Your task to perform on an android device: toggle wifi Image 0: 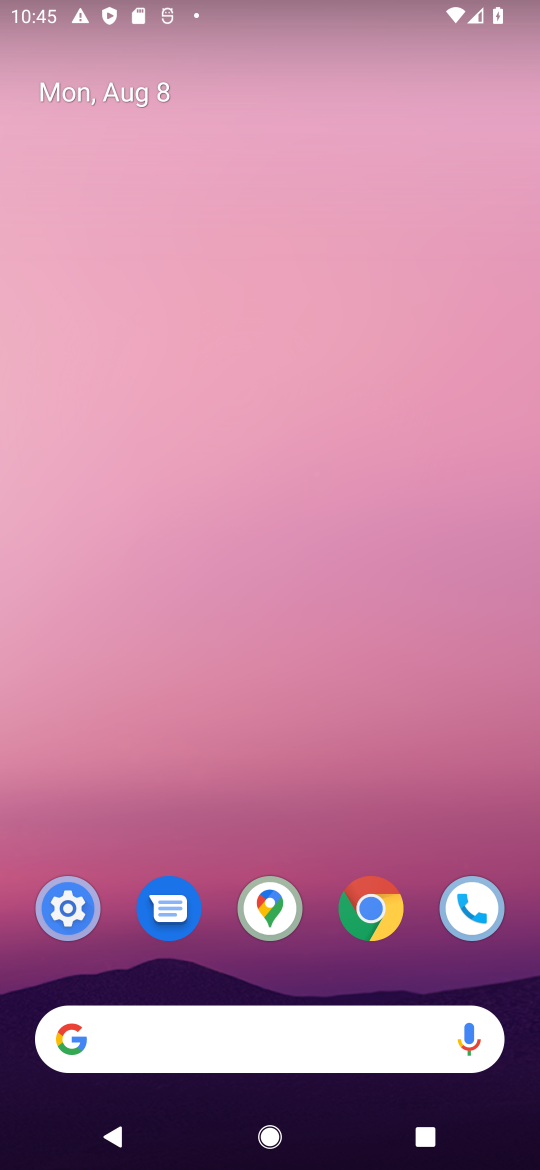
Step 0: drag from (302, 836) to (317, 3)
Your task to perform on an android device: toggle wifi Image 1: 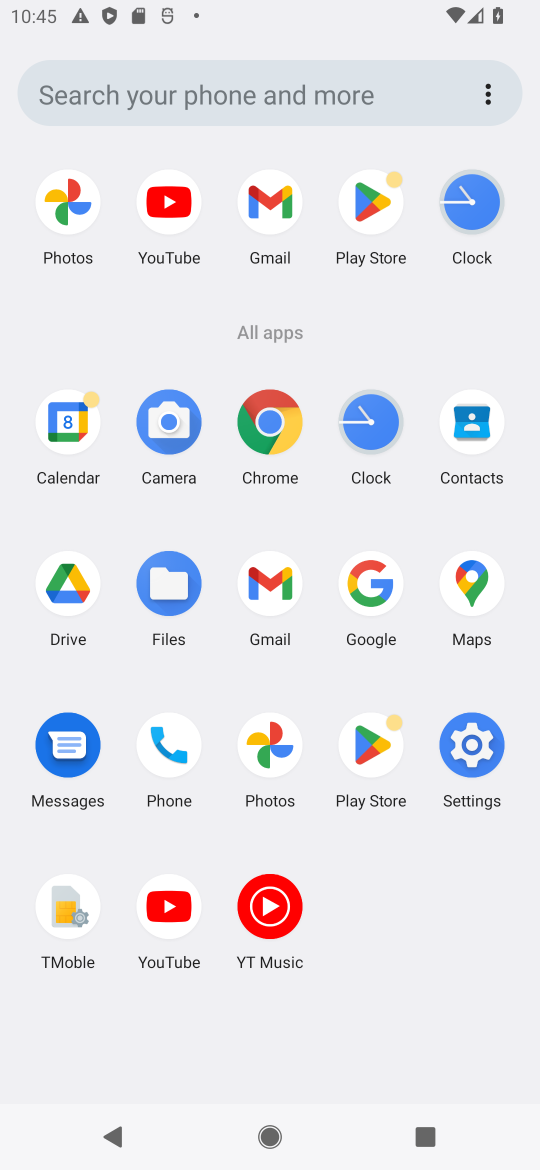
Step 1: click (468, 735)
Your task to perform on an android device: toggle wifi Image 2: 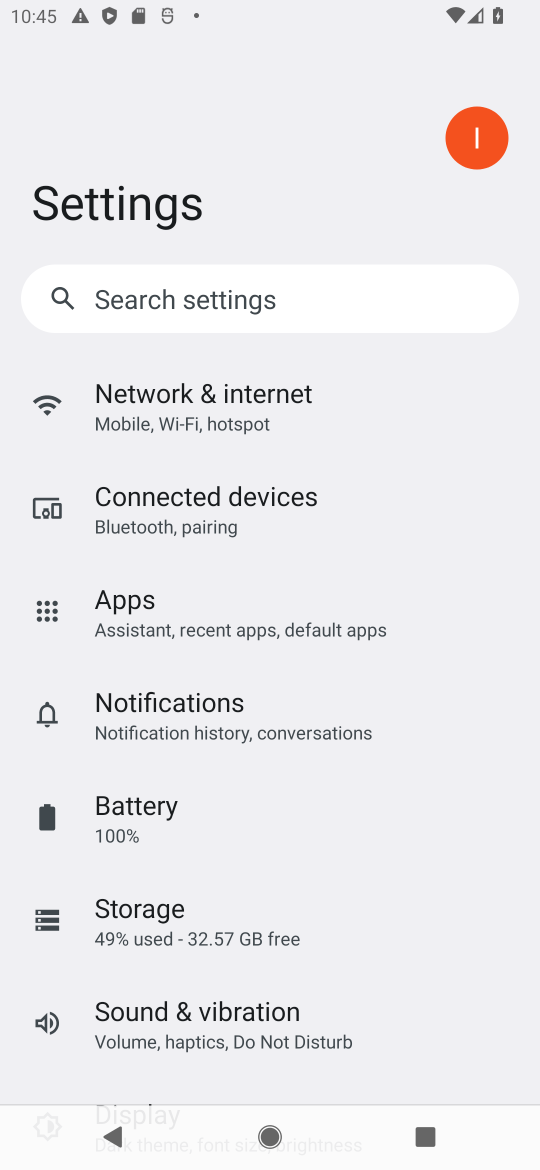
Step 2: click (197, 394)
Your task to perform on an android device: toggle wifi Image 3: 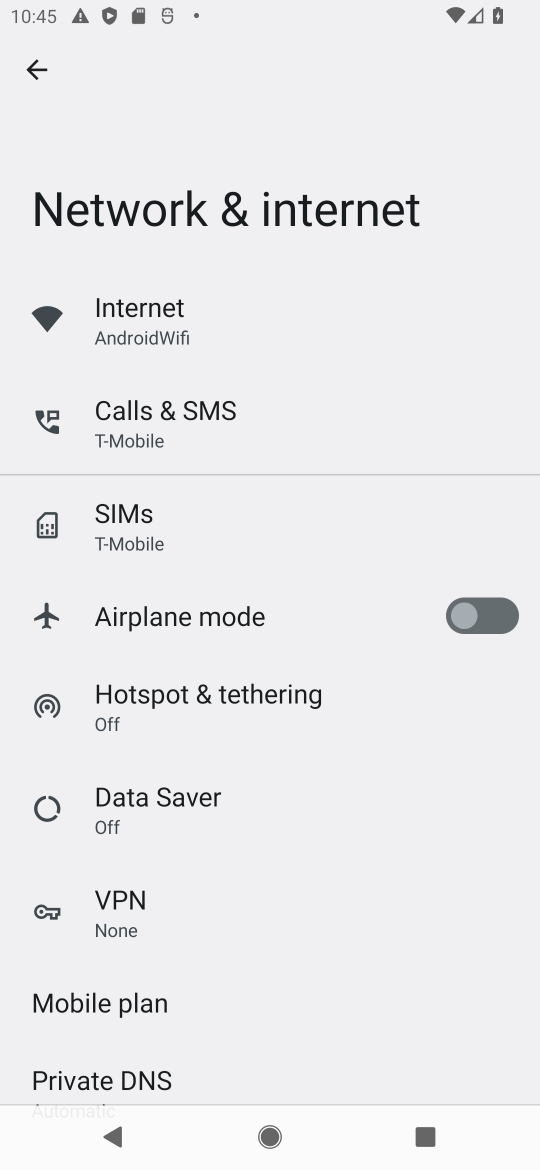
Step 3: click (208, 316)
Your task to perform on an android device: toggle wifi Image 4: 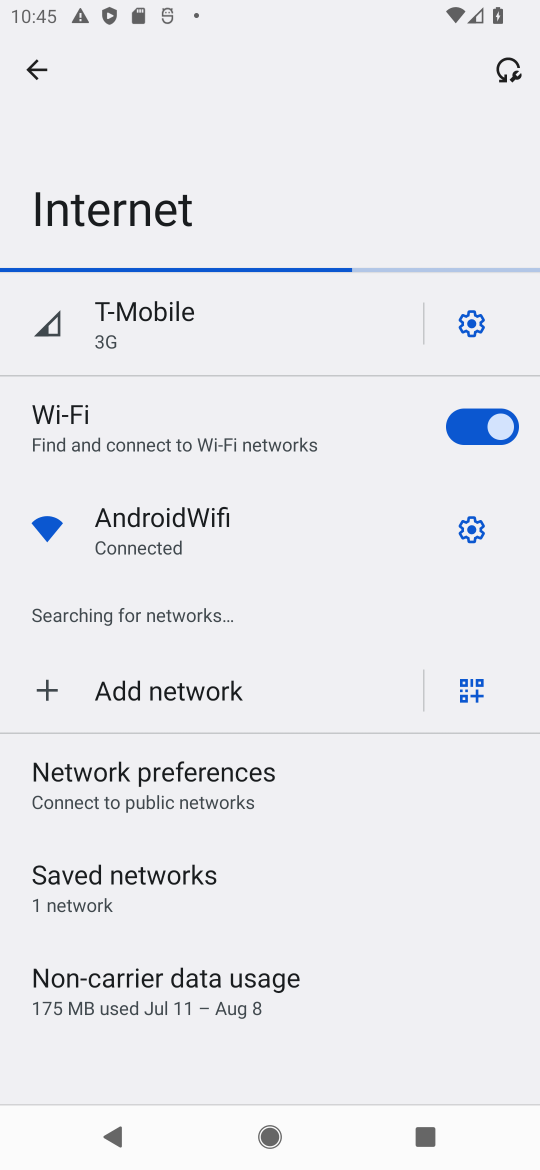
Step 4: click (467, 424)
Your task to perform on an android device: toggle wifi Image 5: 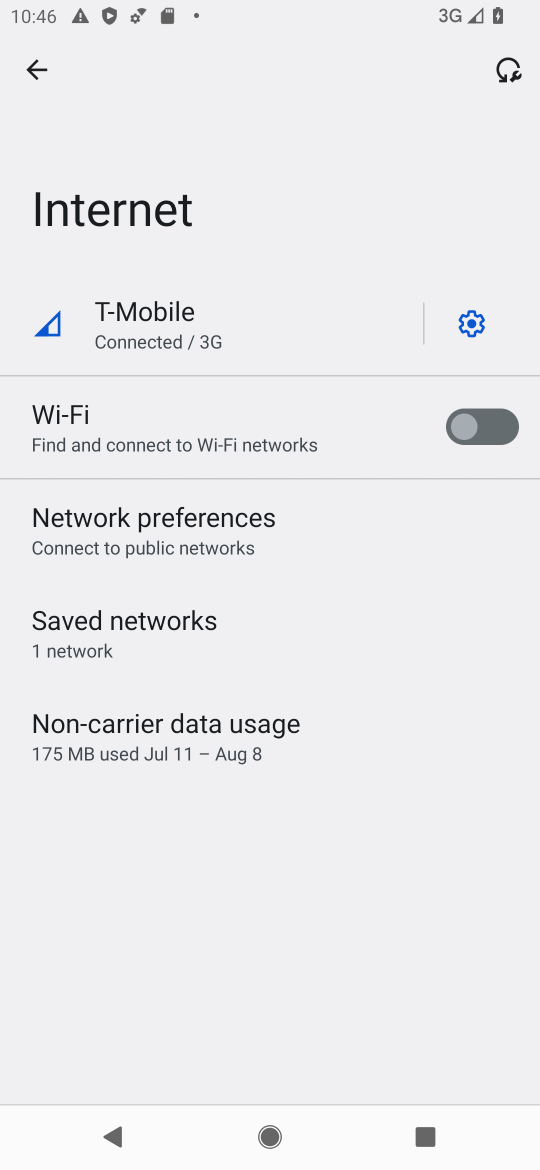
Step 5: task complete